Your task to perform on an android device: Search for vegetarian restaurants on Maps Image 0: 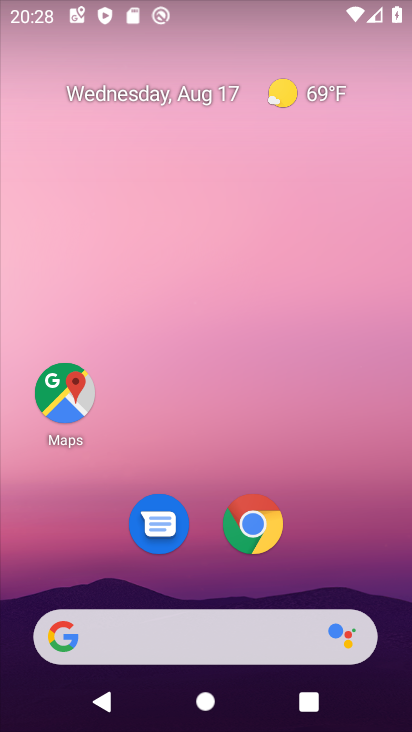
Step 0: click (60, 378)
Your task to perform on an android device: Search for vegetarian restaurants on Maps Image 1: 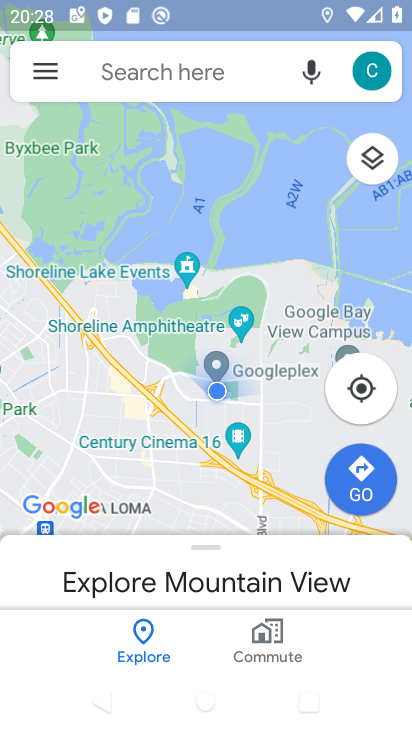
Step 1: click (207, 69)
Your task to perform on an android device: Search for vegetarian restaurants on Maps Image 2: 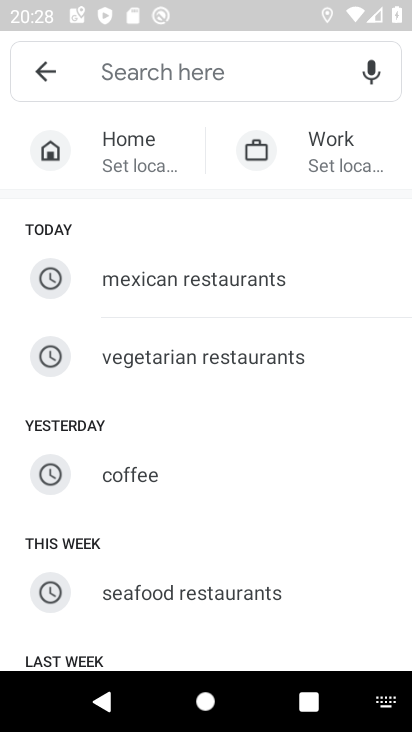
Step 2: click (252, 343)
Your task to perform on an android device: Search for vegetarian restaurants on Maps Image 3: 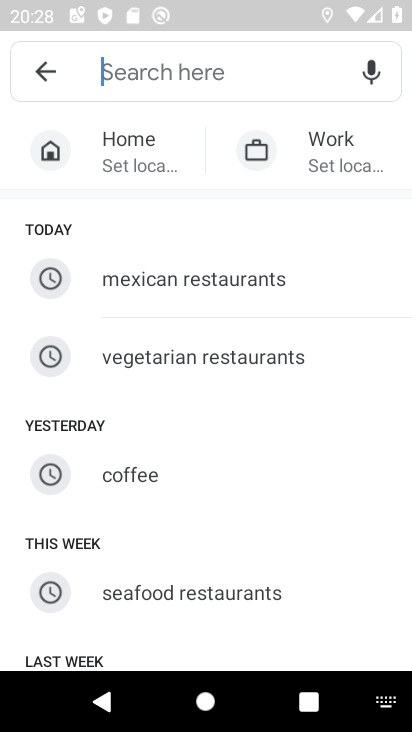
Step 3: click (252, 343)
Your task to perform on an android device: Search for vegetarian restaurants on Maps Image 4: 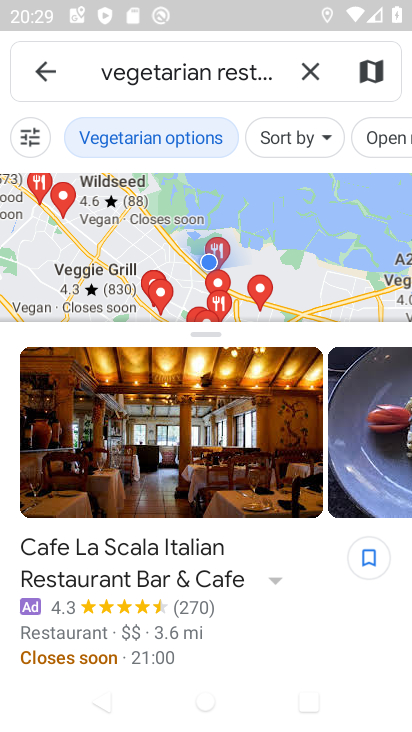
Step 4: task complete